Your task to perform on an android device: turn off javascript in the chrome app Image 0: 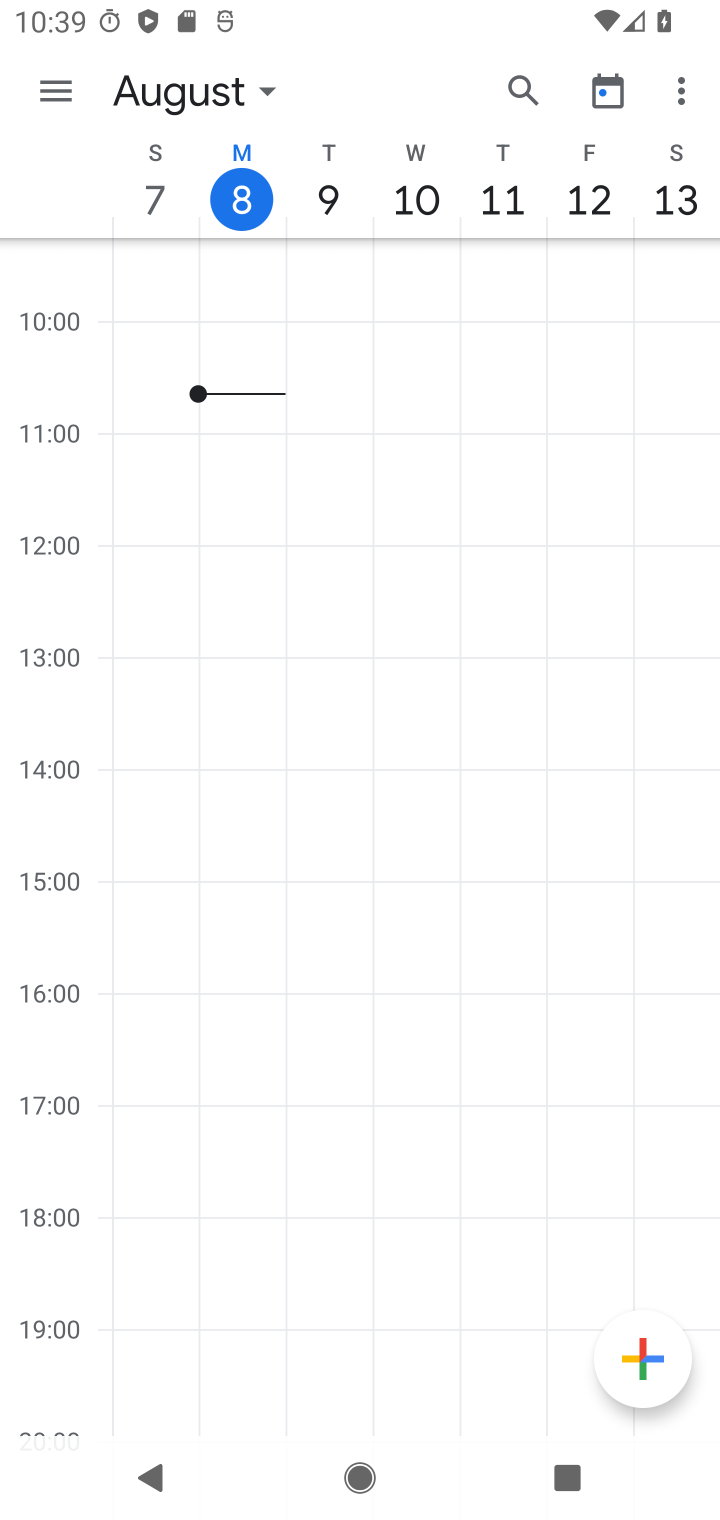
Step 0: press home button
Your task to perform on an android device: turn off javascript in the chrome app Image 1: 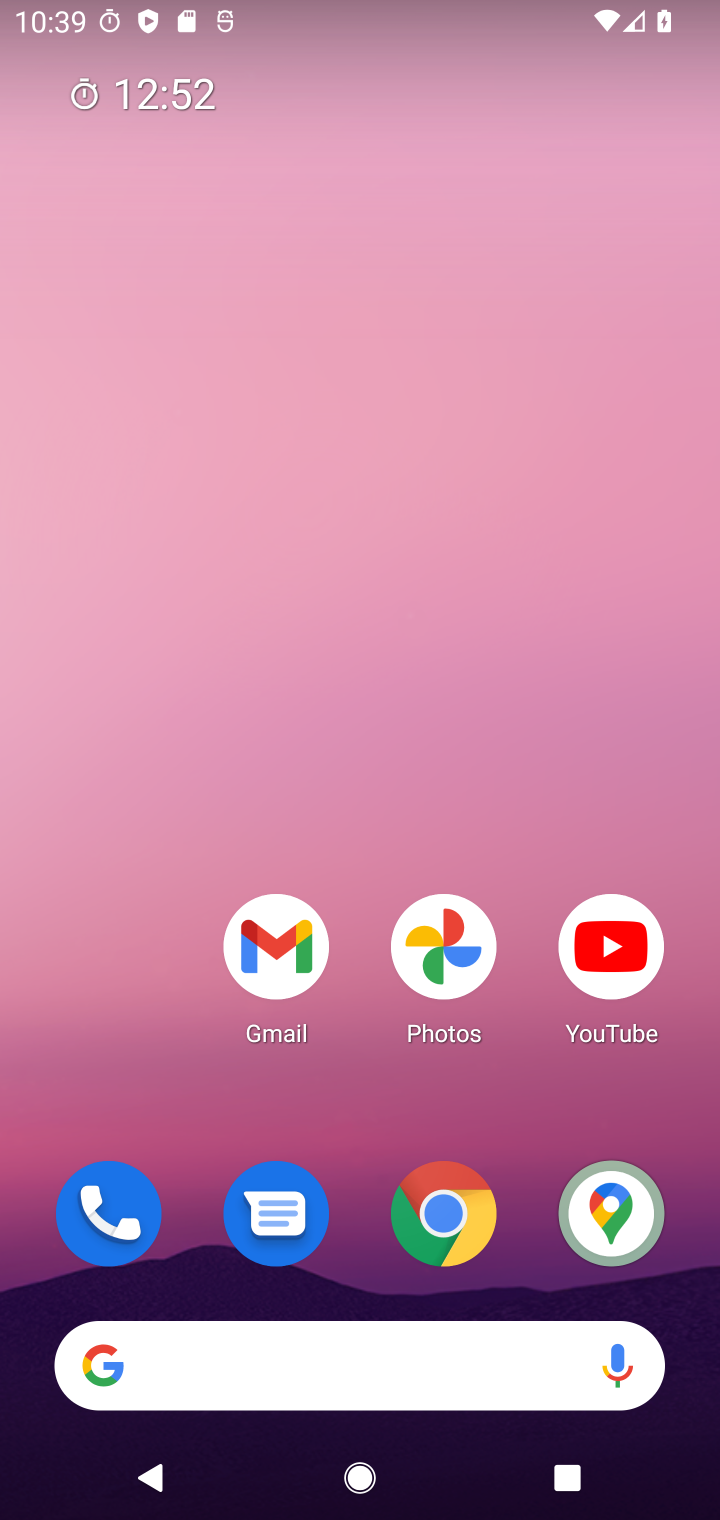
Step 1: drag from (366, 1136) to (378, 259)
Your task to perform on an android device: turn off javascript in the chrome app Image 2: 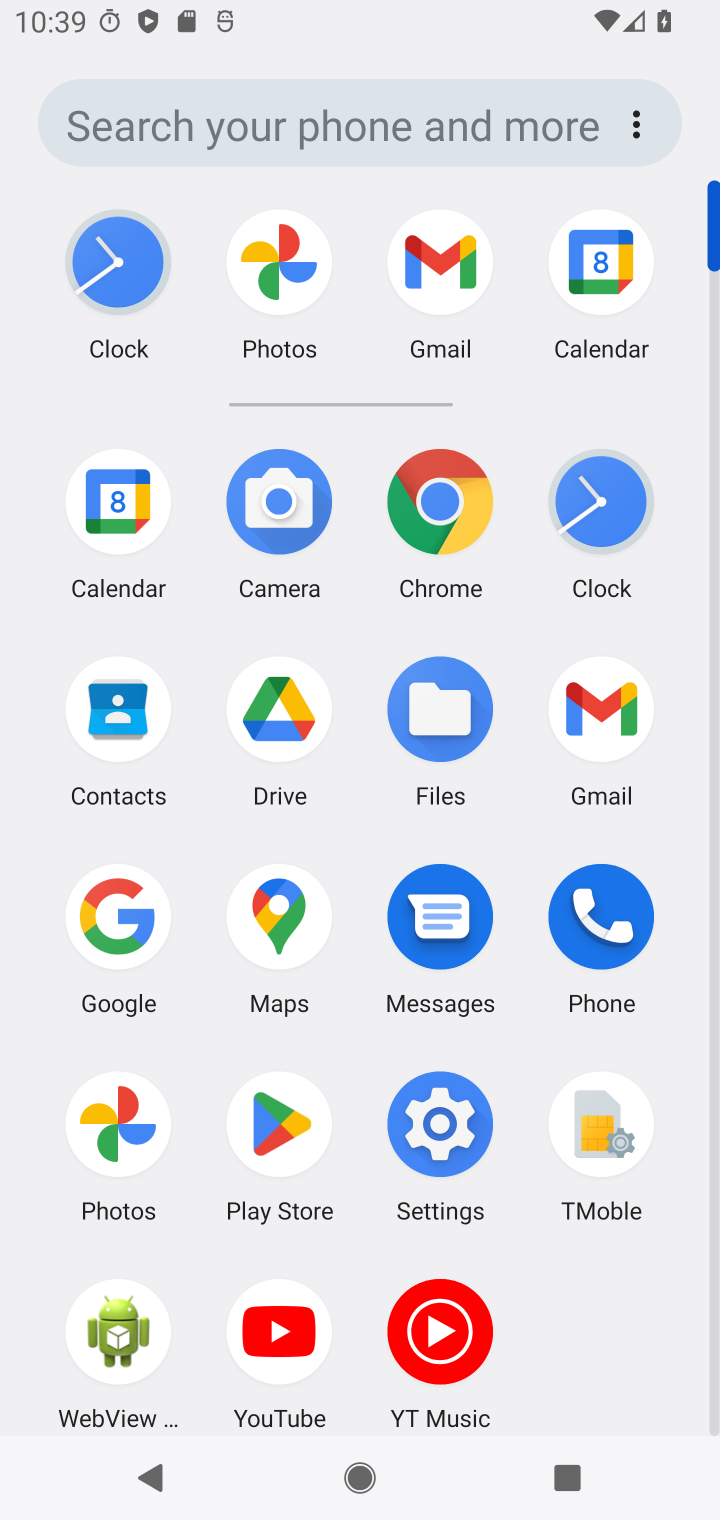
Step 2: click (442, 536)
Your task to perform on an android device: turn off javascript in the chrome app Image 3: 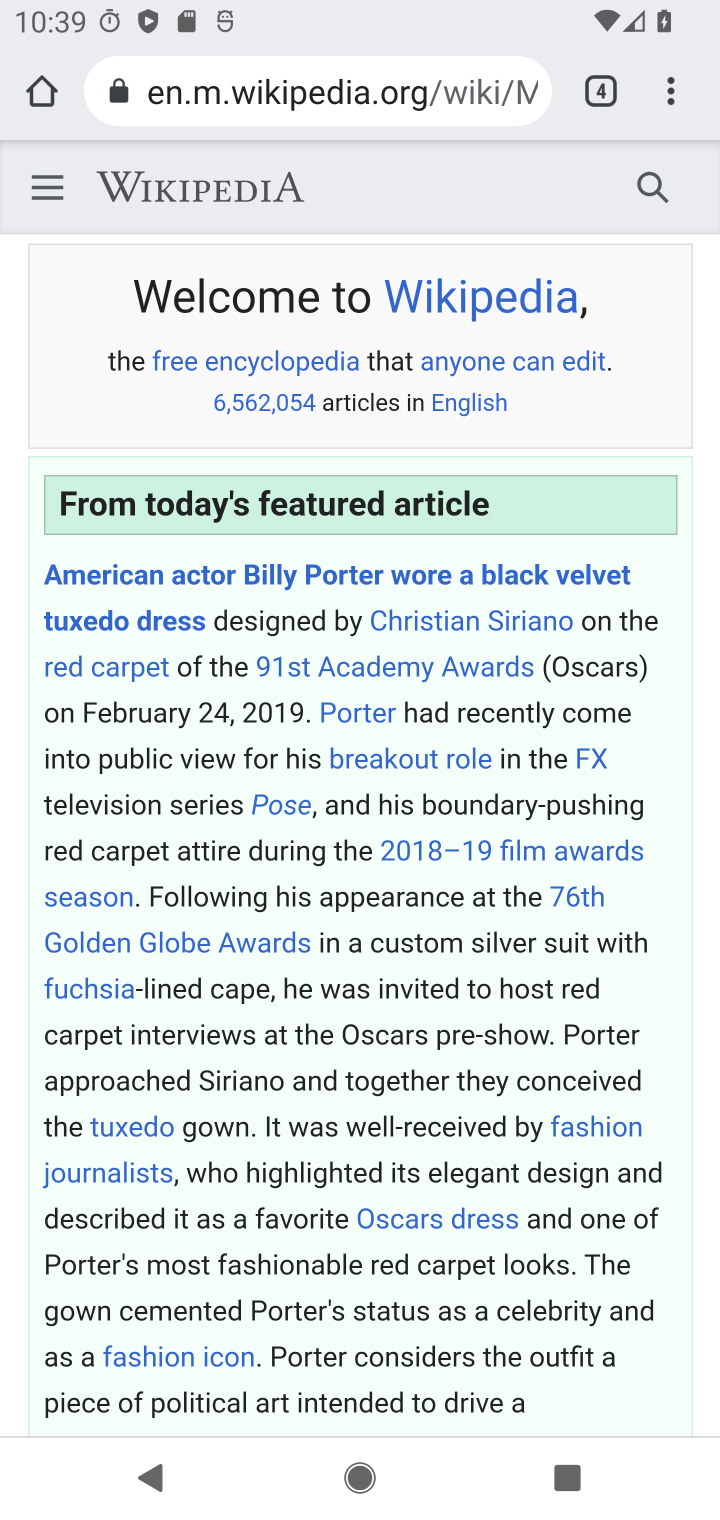
Step 3: click (683, 73)
Your task to perform on an android device: turn off javascript in the chrome app Image 4: 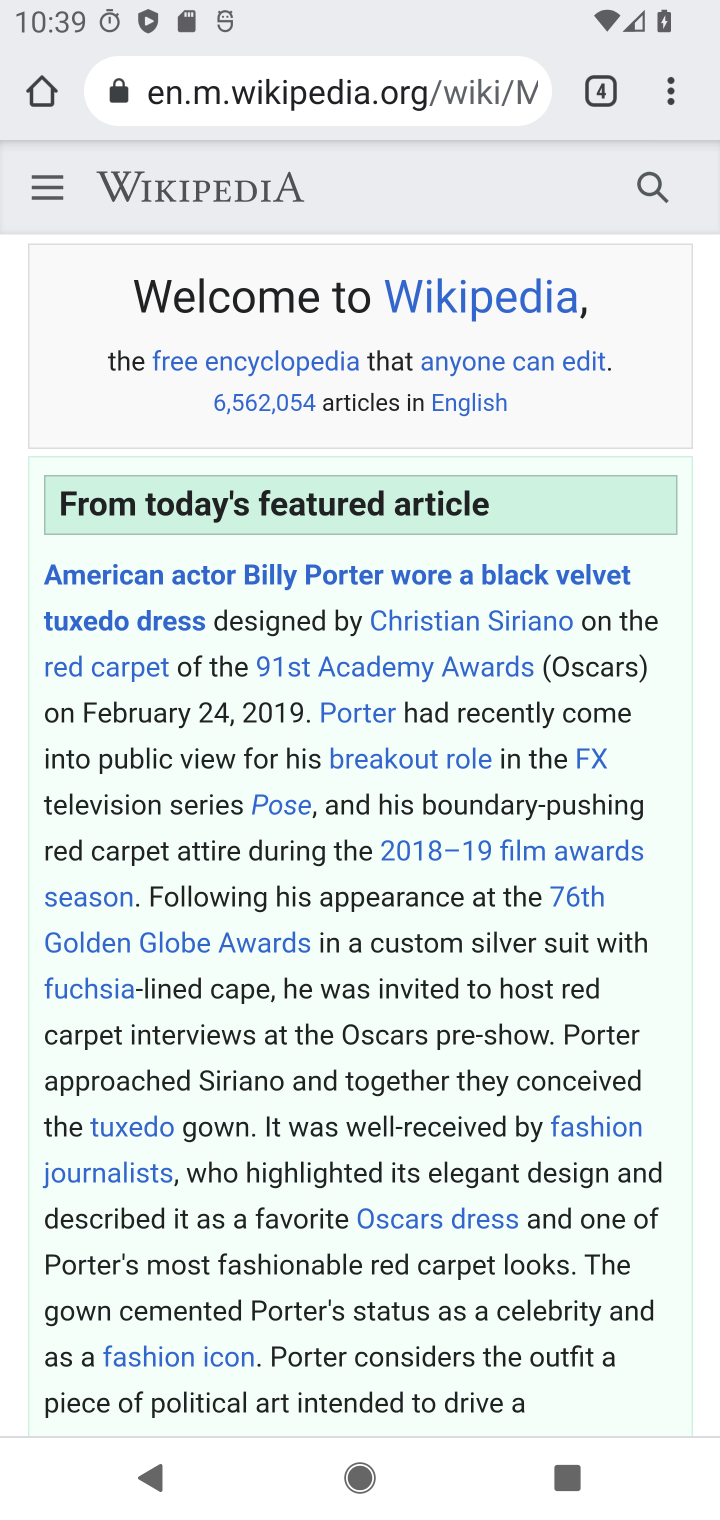
Step 4: click (666, 93)
Your task to perform on an android device: turn off javascript in the chrome app Image 5: 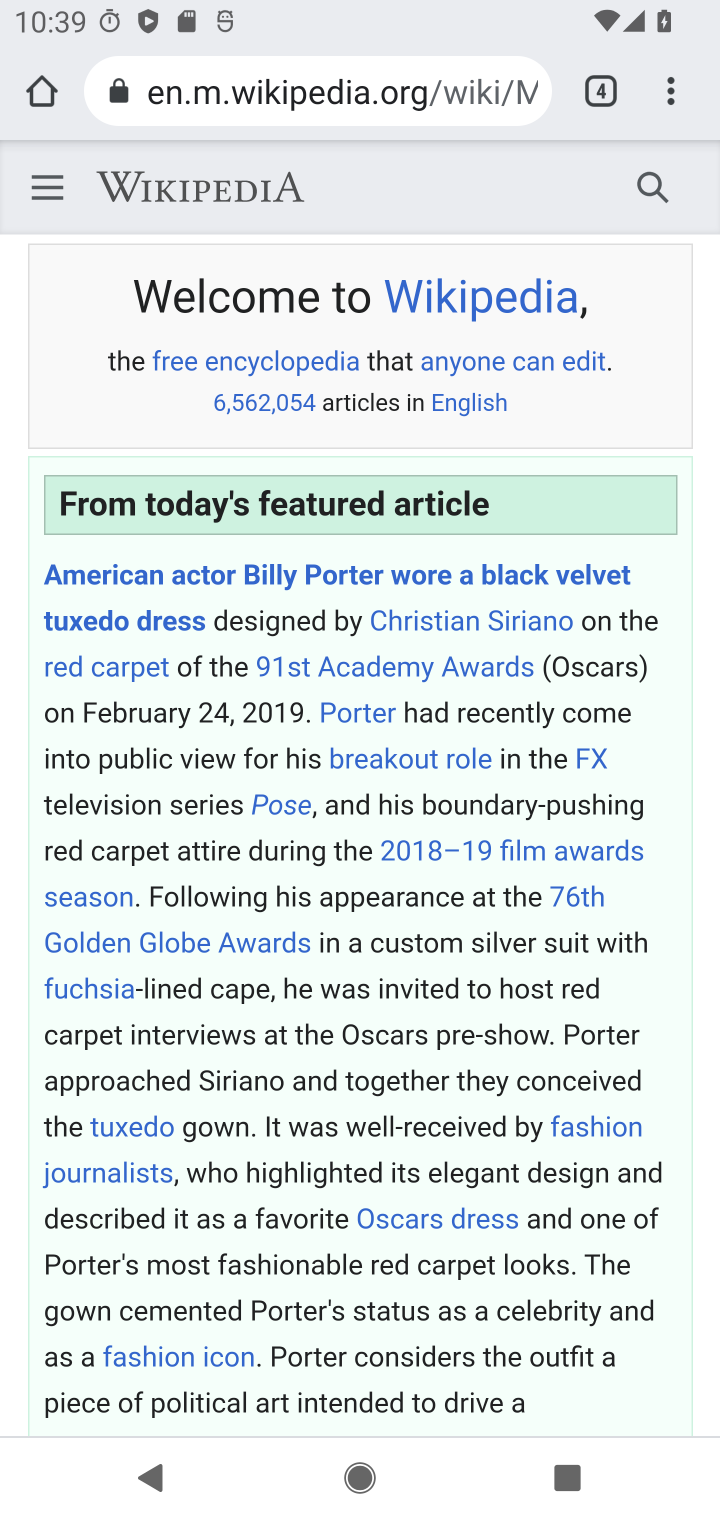
Step 5: click (658, 74)
Your task to perform on an android device: turn off javascript in the chrome app Image 6: 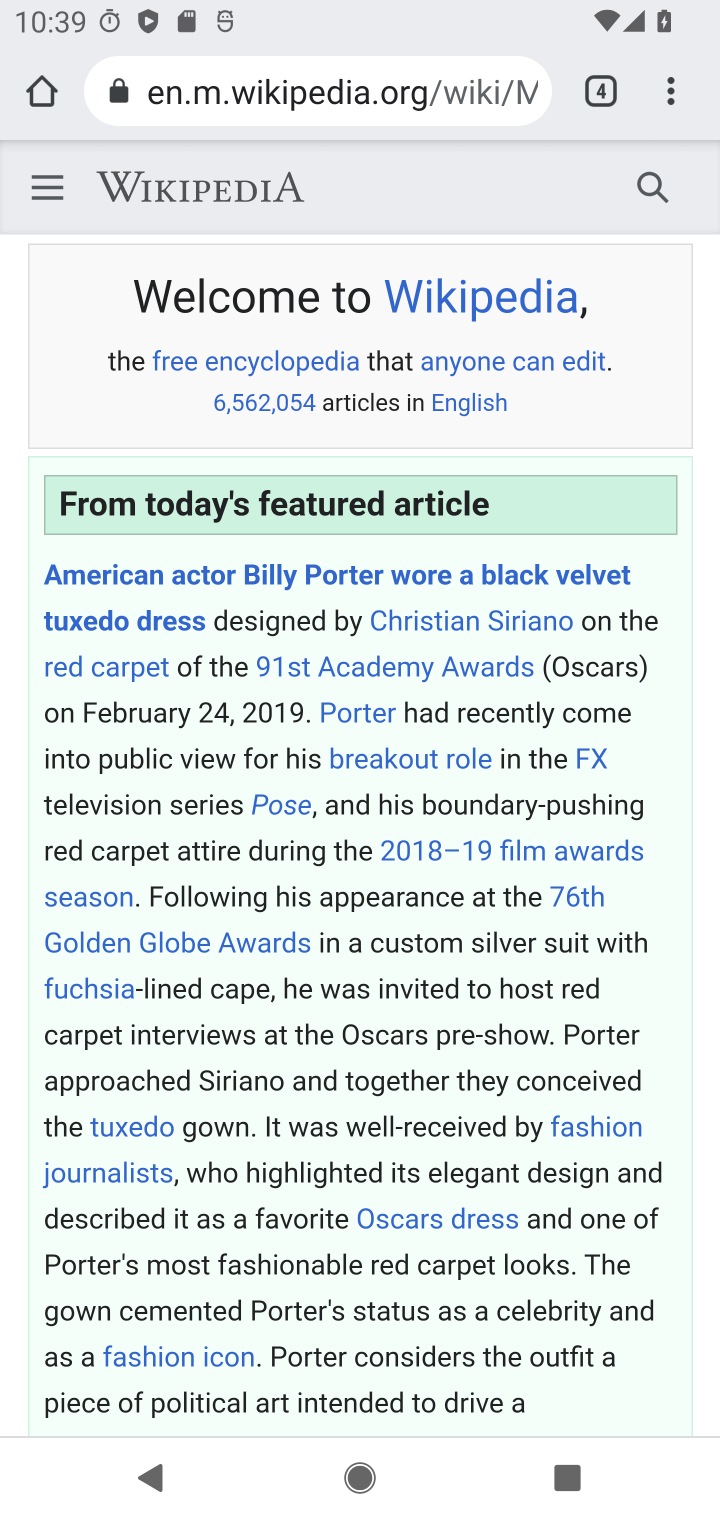
Step 6: click (663, 108)
Your task to perform on an android device: turn off javascript in the chrome app Image 7: 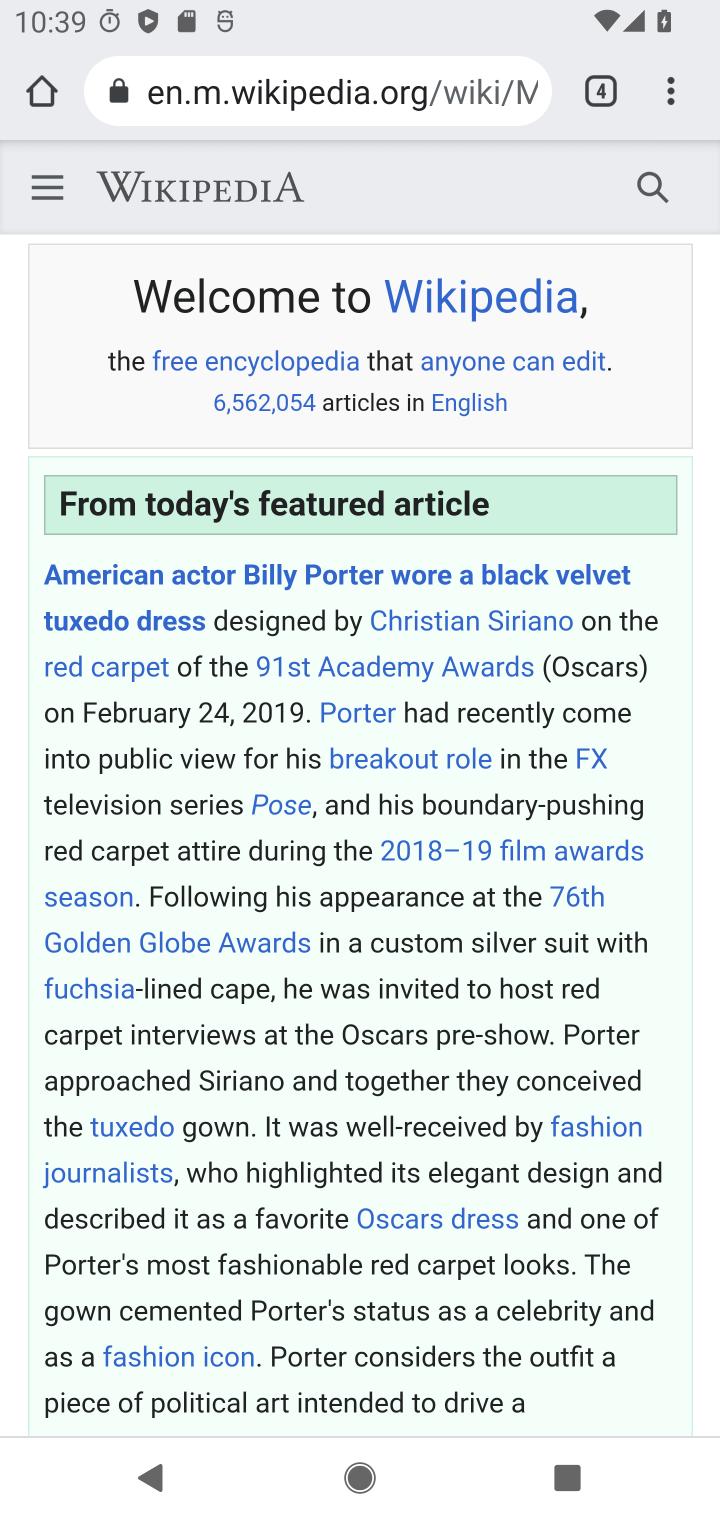
Step 7: click (664, 92)
Your task to perform on an android device: turn off javascript in the chrome app Image 8: 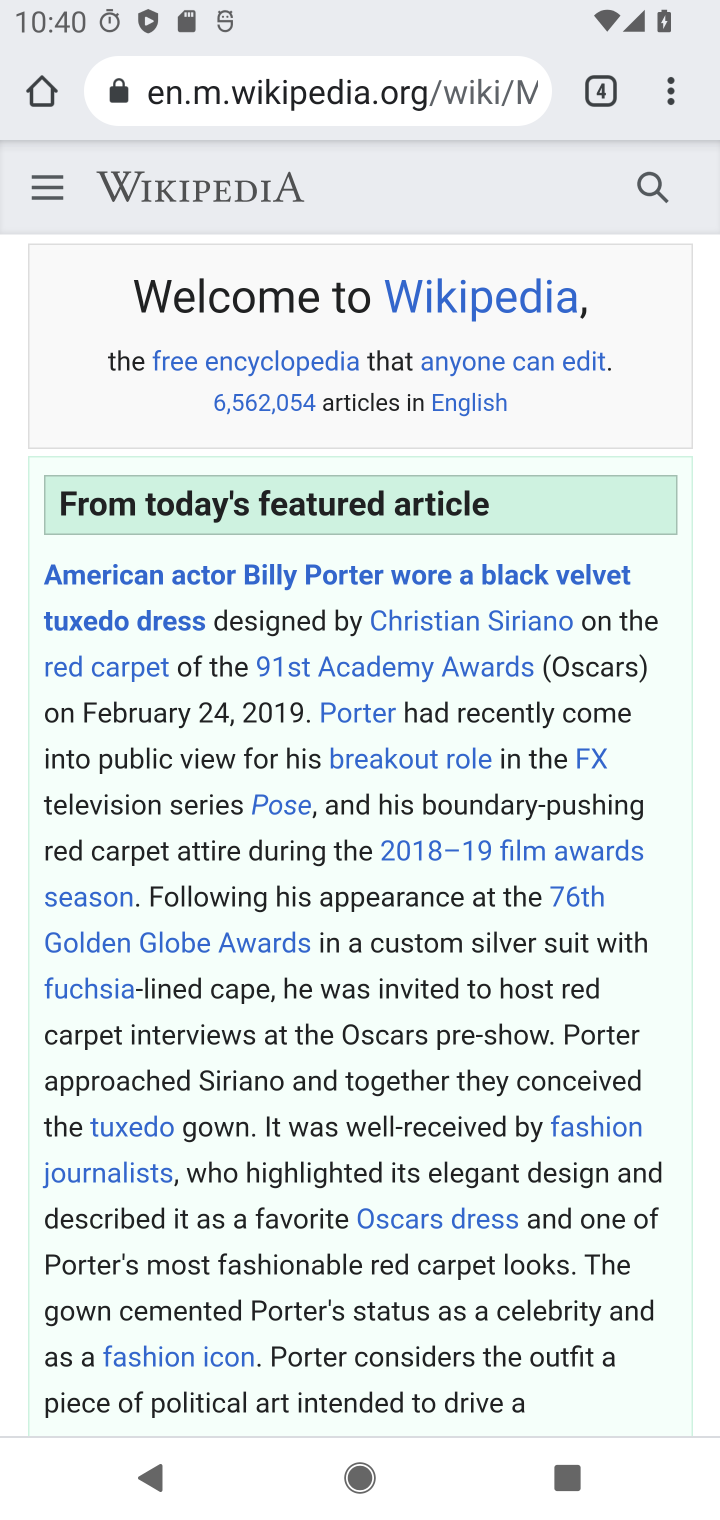
Step 8: click (667, 89)
Your task to perform on an android device: turn off javascript in the chrome app Image 9: 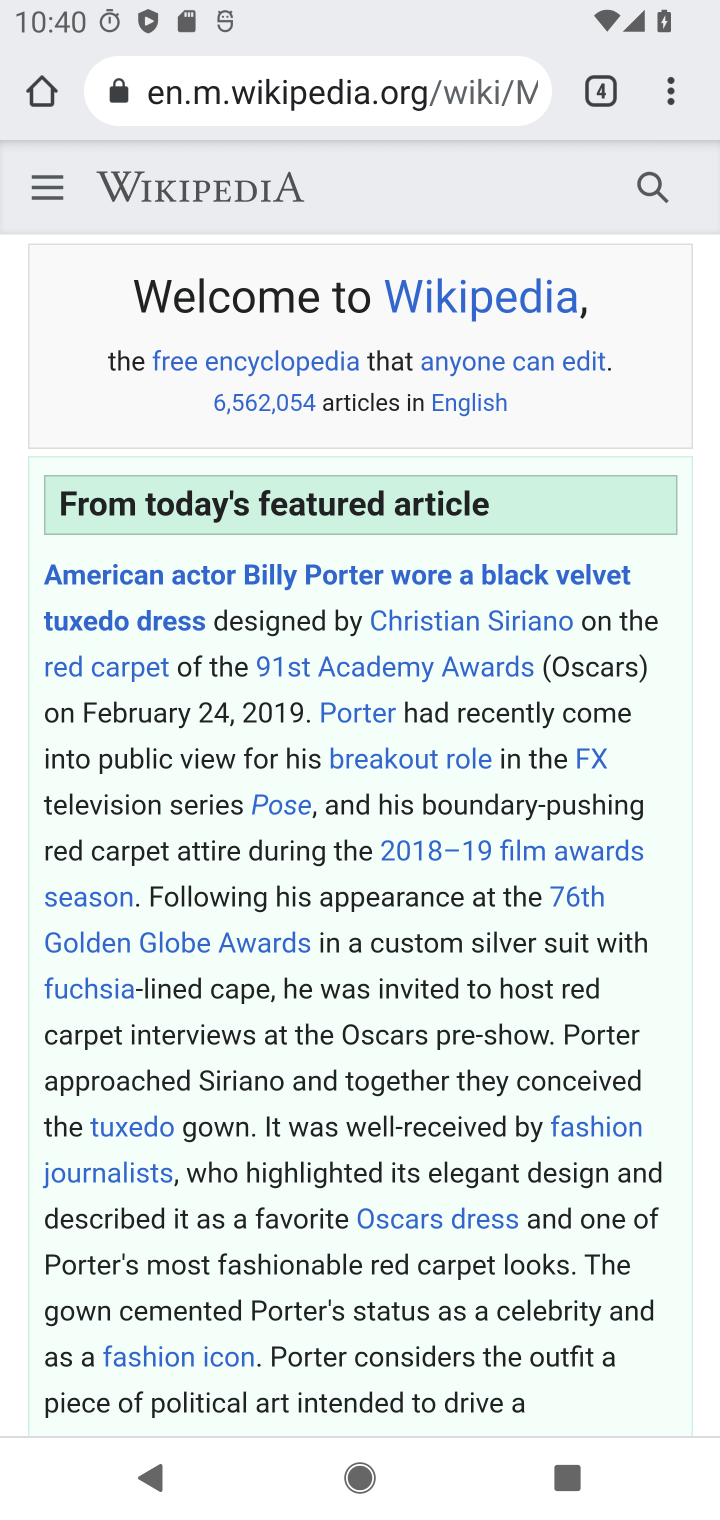
Step 9: click (662, 85)
Your task to perform on an android device: turn off javascript in the chrome app Image 10: 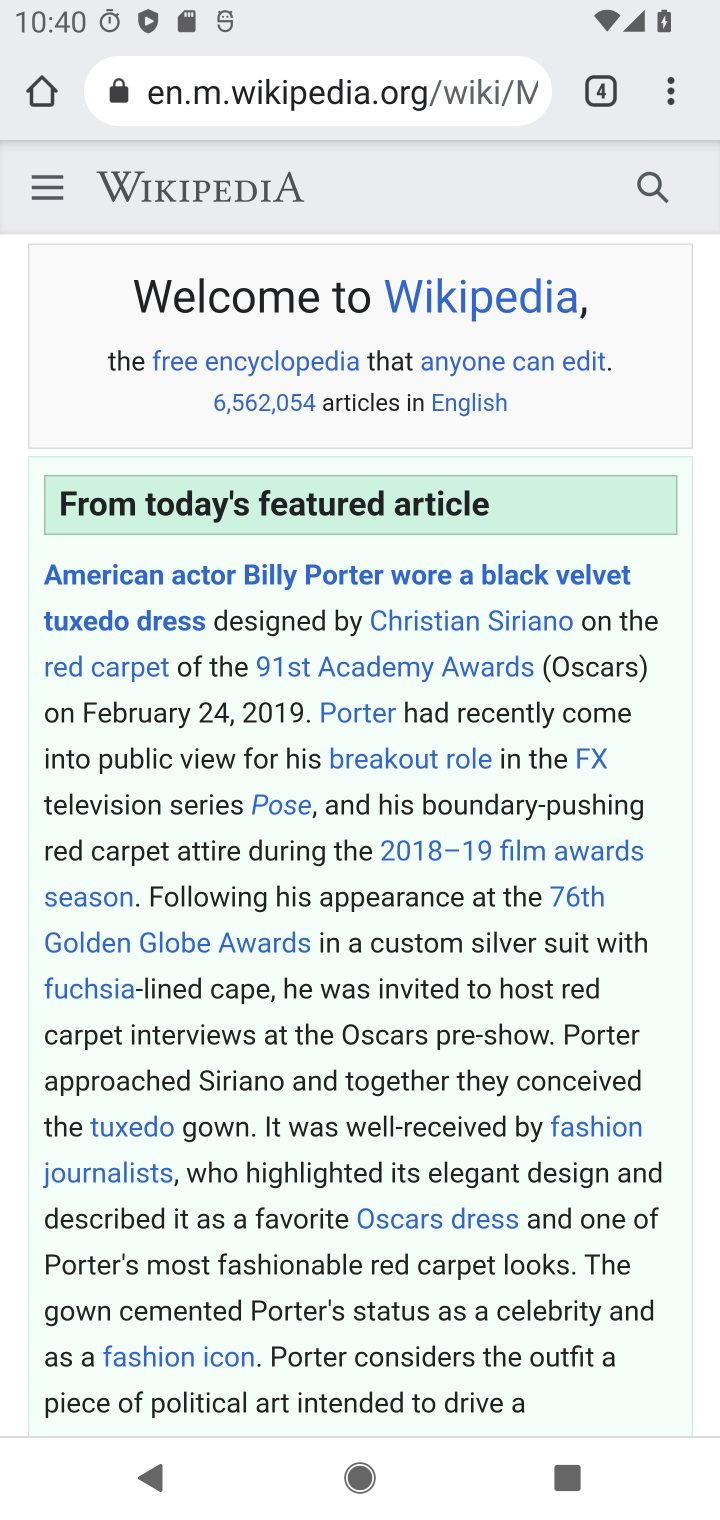
Step 10: click (677, 76)
Your task to perform on an android device: turn off javascript in the chrome app Image 11: 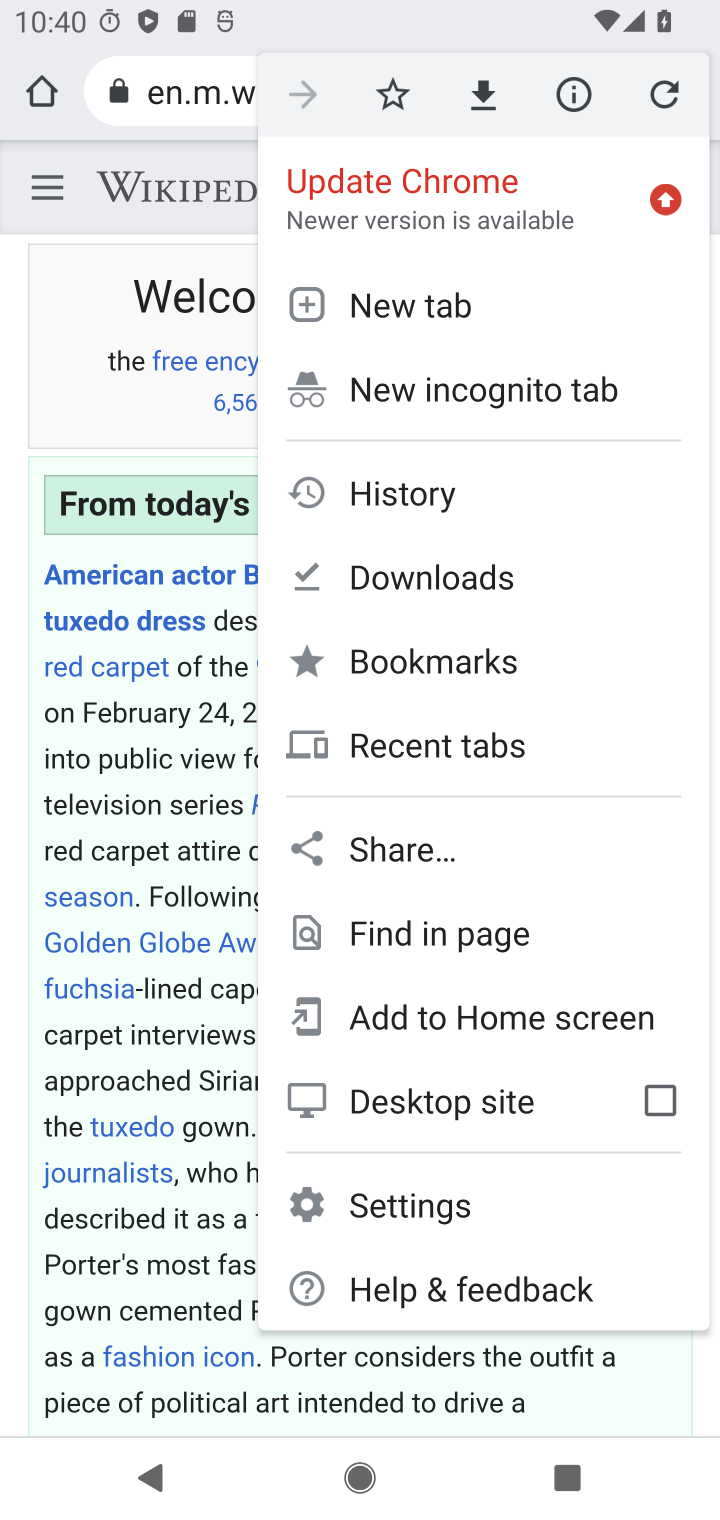
Step 11: click (437, 1200)
Your task to perform on an android device: turn off javascript in the chrome app Image 12: 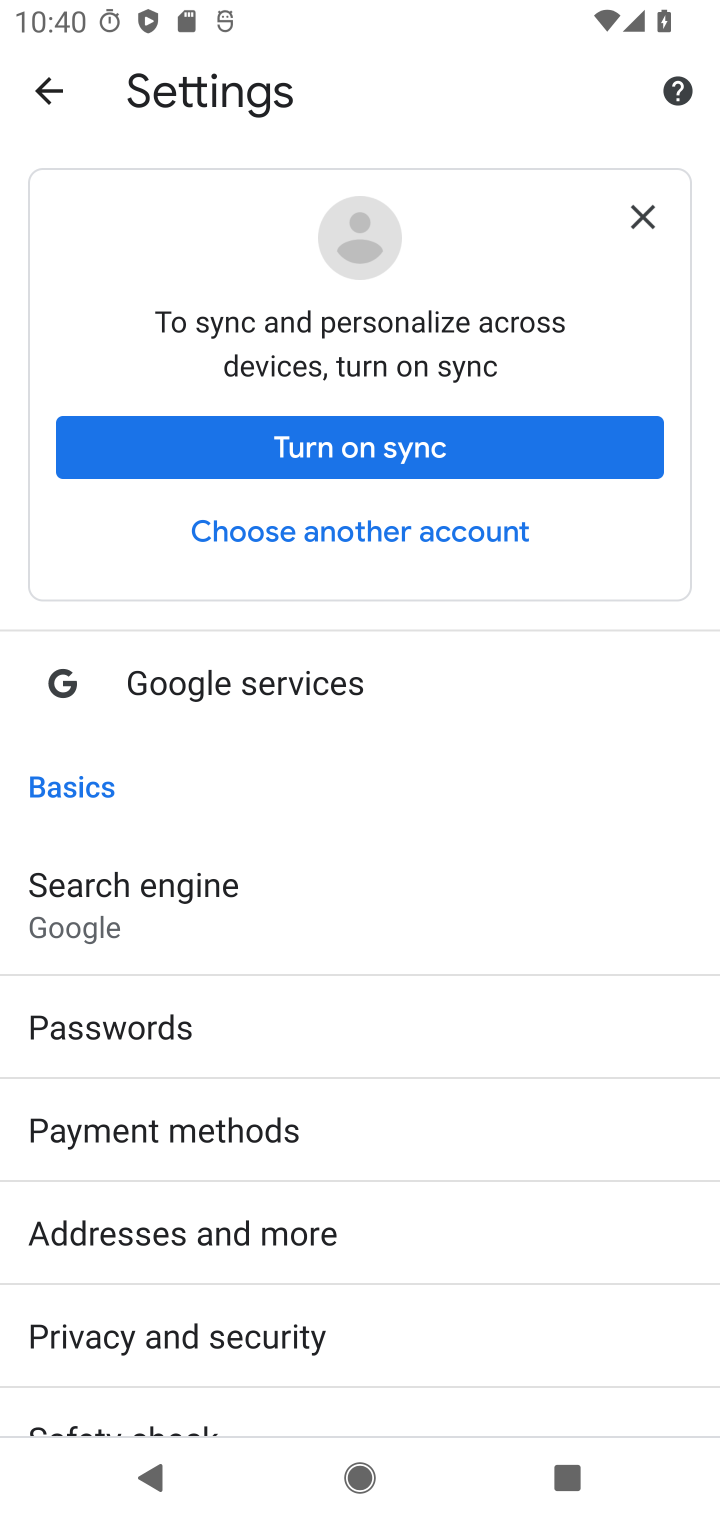
Step 12: drag from (320, 1300) to (407, 369)
Your task to perform on an android device: turn off javascript in the chrome app Image 13: 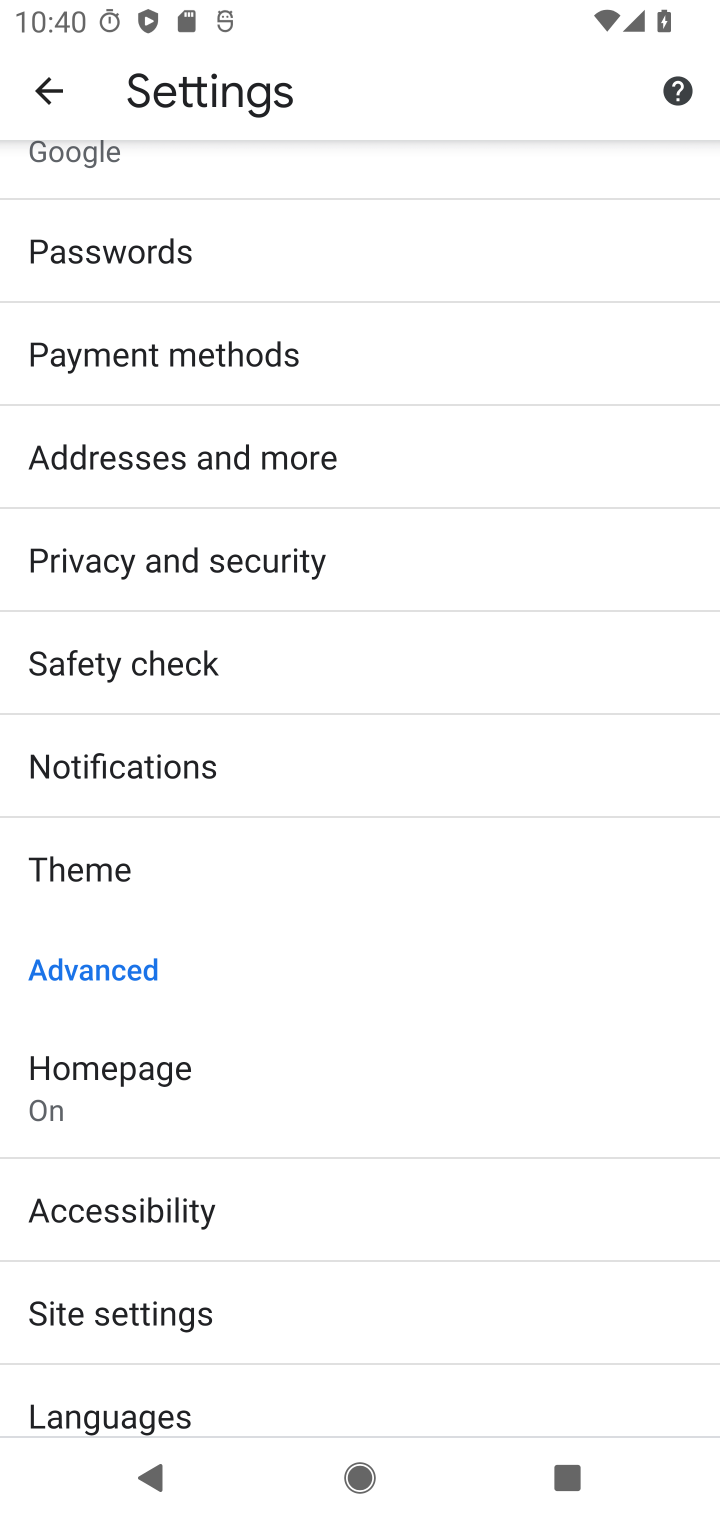
Step 13: click (246, 1328)
Your task to perform on an android device: turn off javascript in the chrome app Image 14: 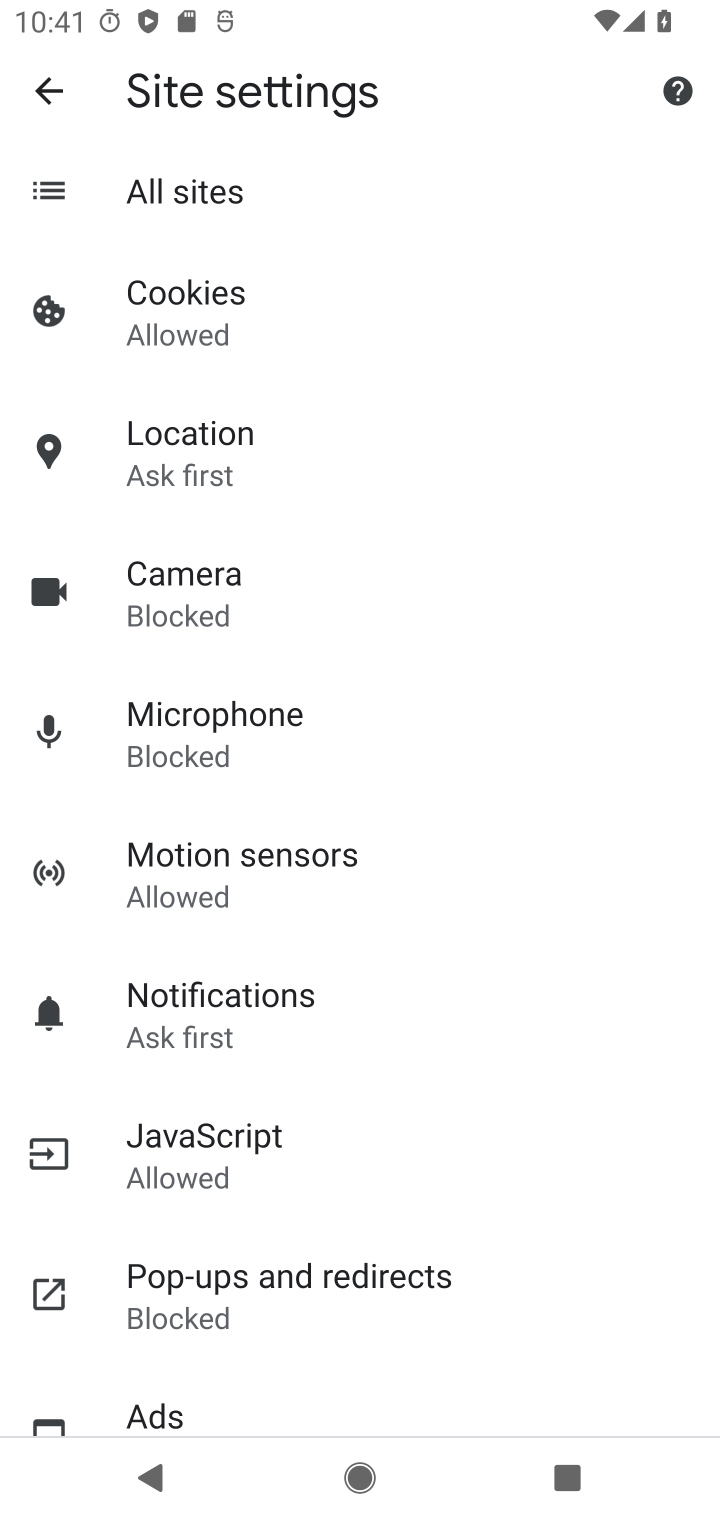
Step 14: click (308, 1196)
Your task to perform on an android device: turn off javascript in the chrome app Image 15: 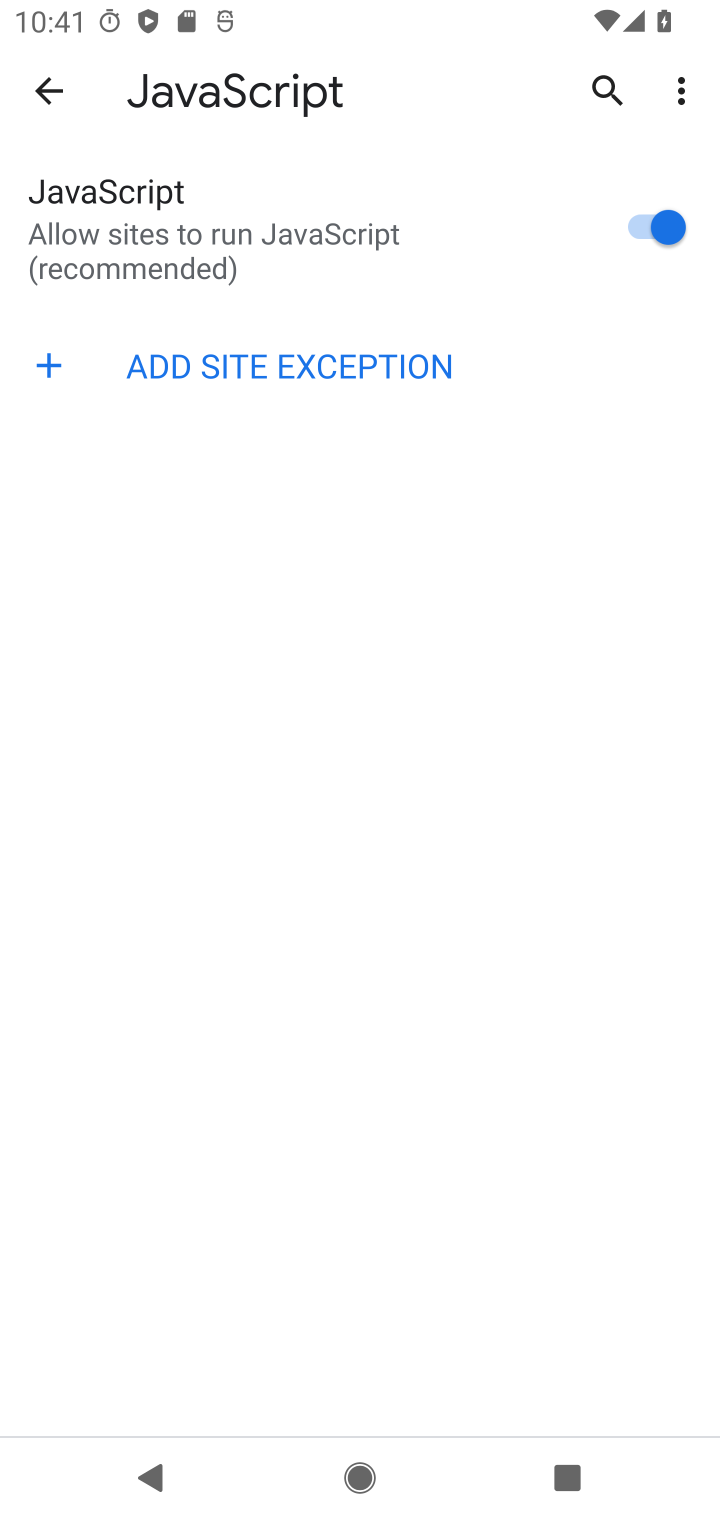
Step 15: click (673, 265)
Your task to perform on an android device: turn off javascript in the chrome app Image 16: 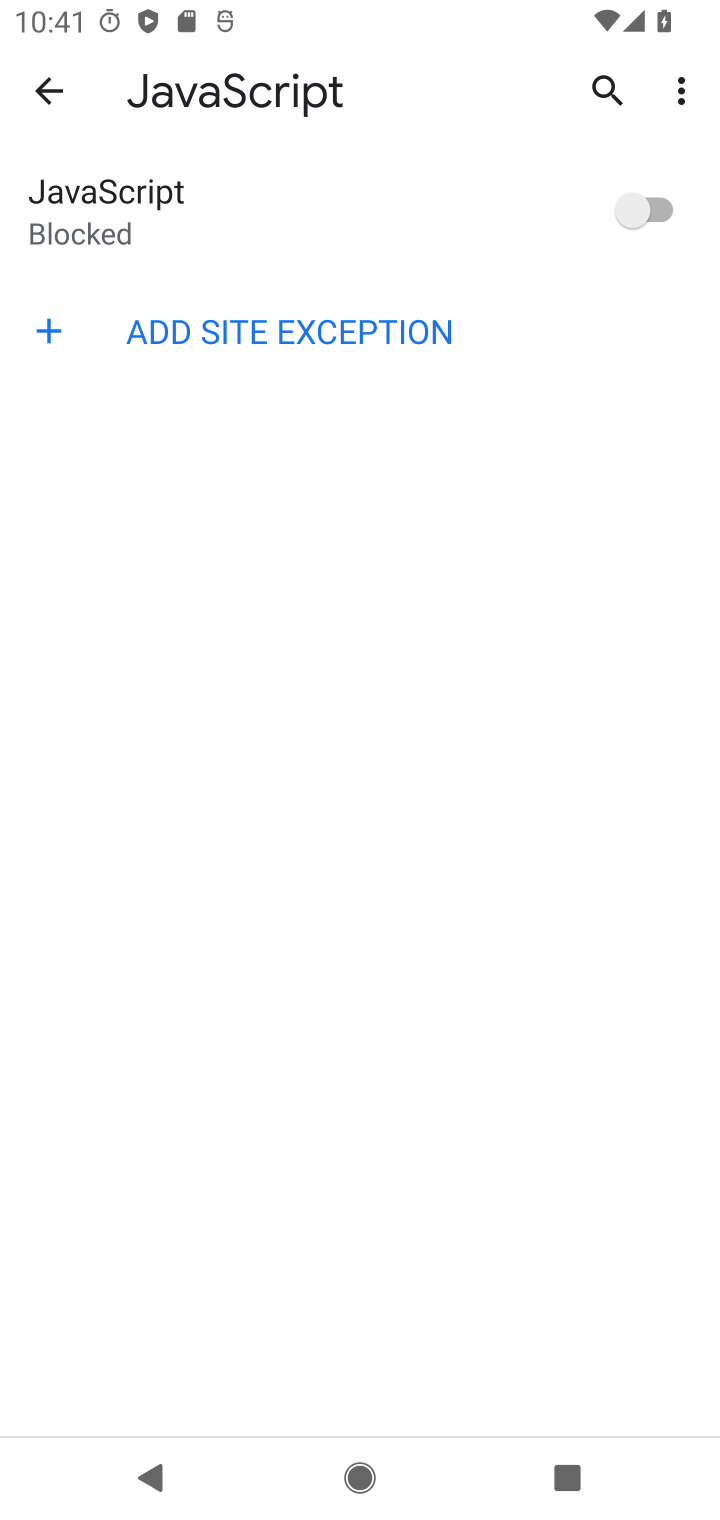
Step 16: task complete